Your task to perform on an android device: change your default location settings in chrome Image 0: 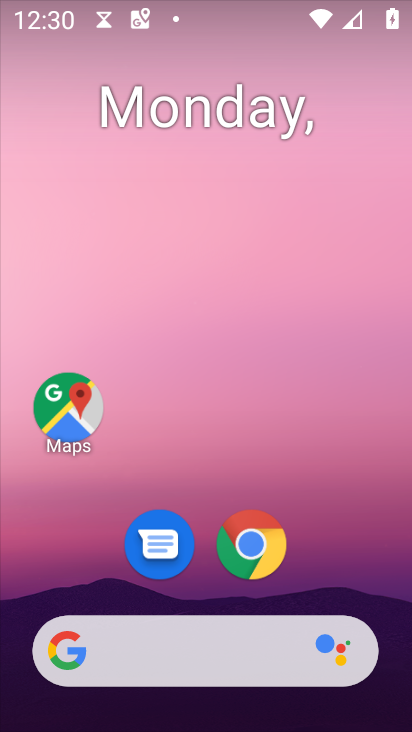
Step 0: drag from (329, 528) to (317, 176)
Your task to perform on an android device: change your default location settings in chrome Image 1: 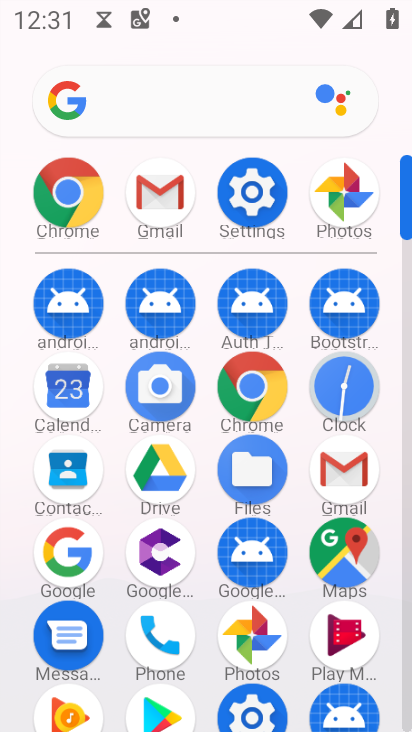
Step 1: click (246, 401)
Your task to perform on an android device: change your default location settings in chrome Image 2: 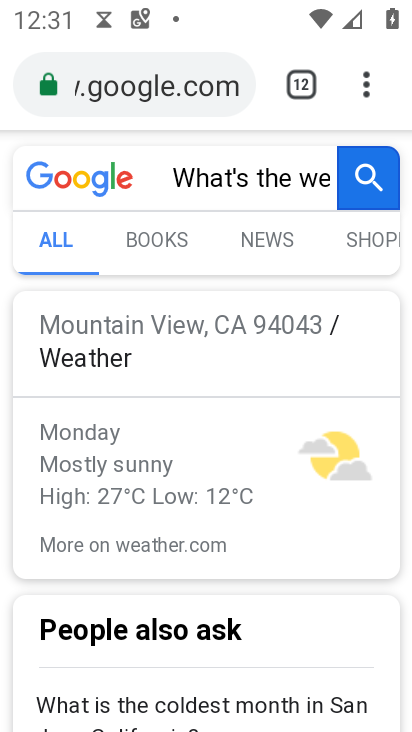
Step 2: click (356, 79)
Your task to perform on an android device: change your default location settings in chrome Image 3: 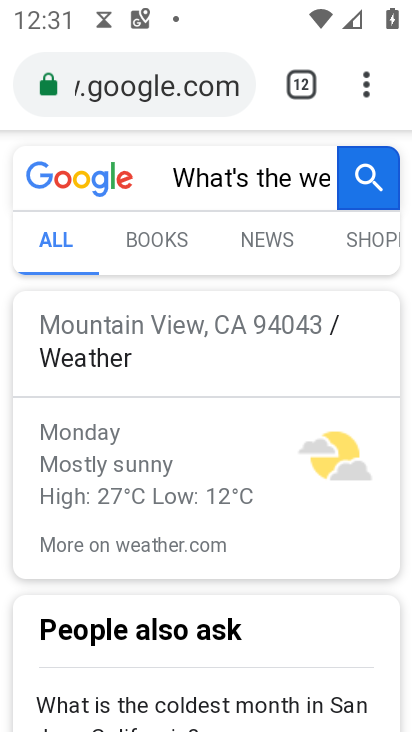
Step 3: click (368, 84)
Your task to perform on an android device: change your default location settings in chrome Image 4: 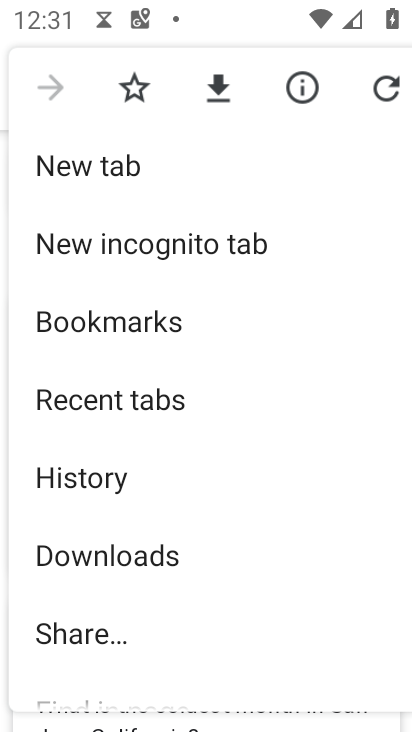
Step 4: drag from (183, 543) to (244, 204)
Your task to perform on an android device: change your default location settings in chrome Image 5: 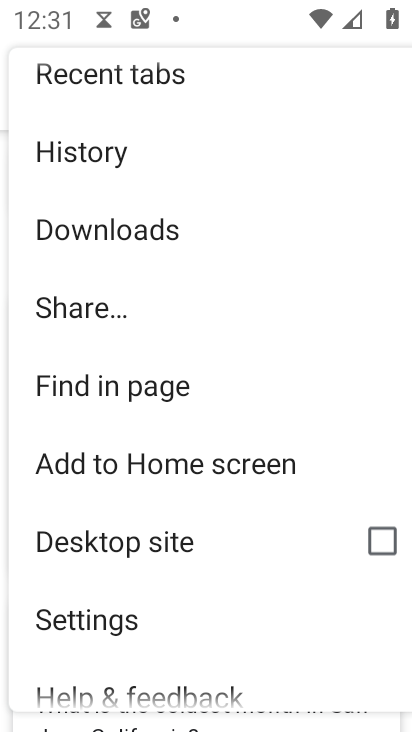
Step 5: click (118, 636)
Your task to perform on an android device: change your default location settings in chrome Image 6: 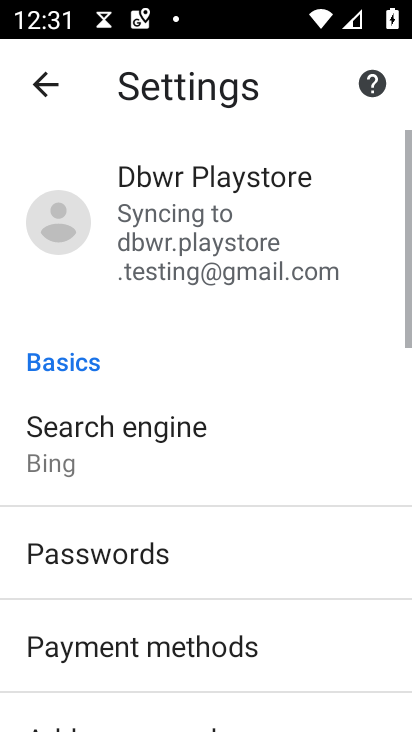
Step 6: drag from (126, 587) to (211, 216)
Your task to perform on an android device: change your default location settings in chrome Image 7: 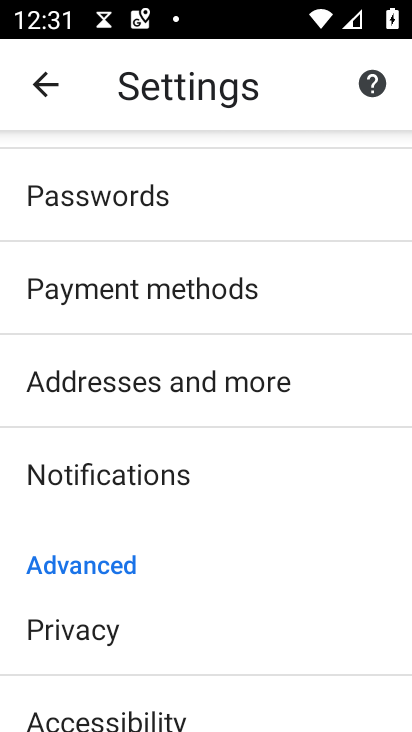
Step 7: drag from (129, 652) to (176, 344)
Your task to perform on an android device: change your default location settings in chrome Image 8: 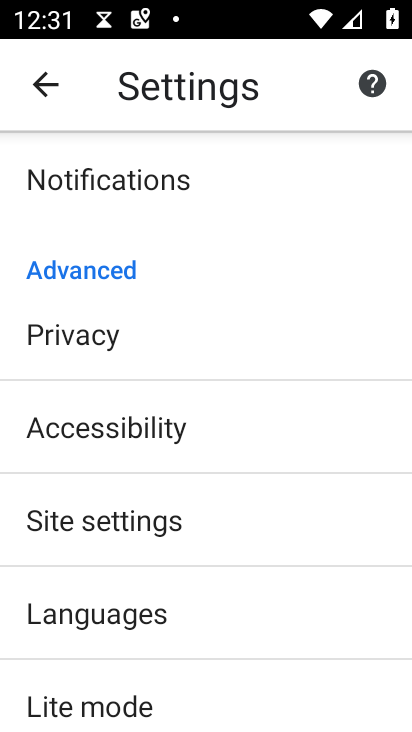
Step 8: click (104, 516)
Your task to perform on an android device: change your default location settings in chrome Image 9: 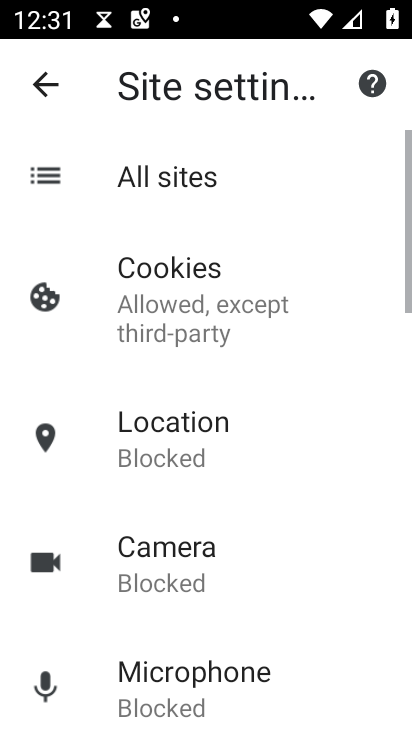
Step 9: click (116, 423)
Your task to perform on an android device: change your default location settings in chrome Image 10: 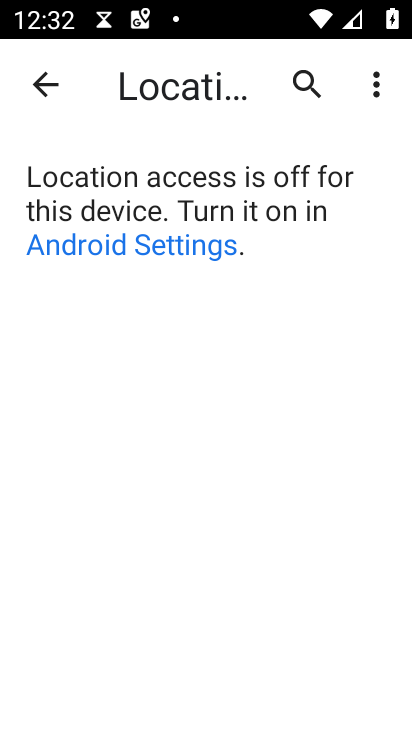
Step 10: task complete